Your task to perform on an android device: add a contact in the contacts app Image 0: 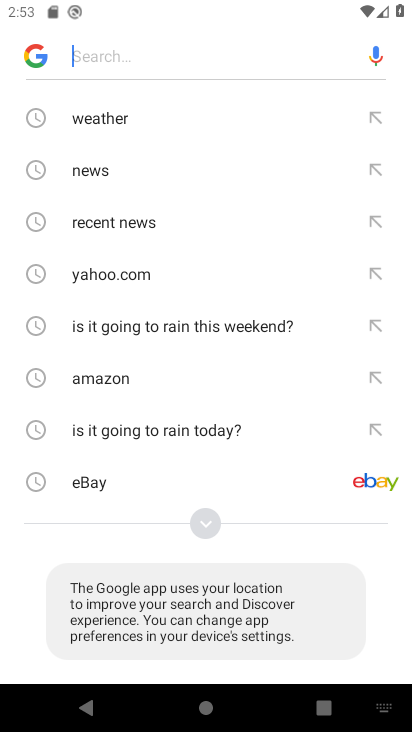
Step 0: press home button
Your task to perform on an android device: add a contact in the contacts app Image 1: 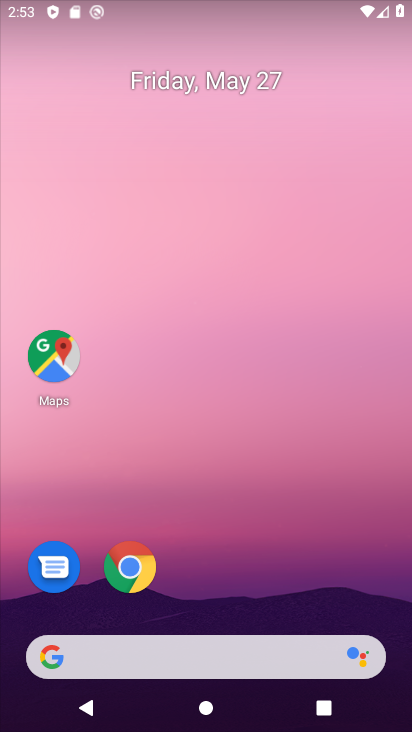
Step 1: drag from (231, 577) to (219, 160)
Your task to perform on an android device: add a contact in the contacts app Image 2: 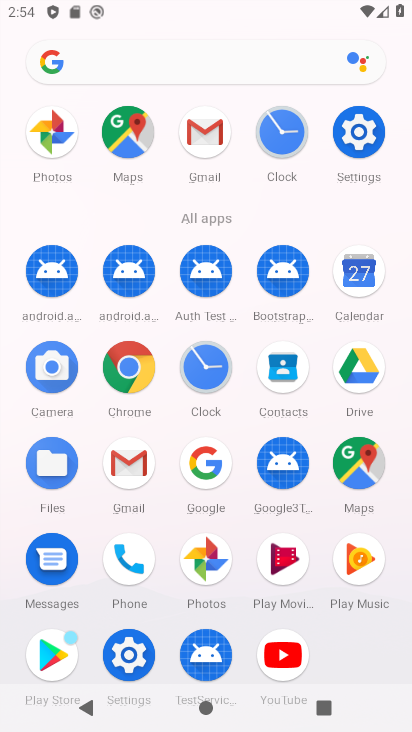
Step 2: click (279, 366)
Your task to perform on an android device: add a contact in the contacts app Image 3: 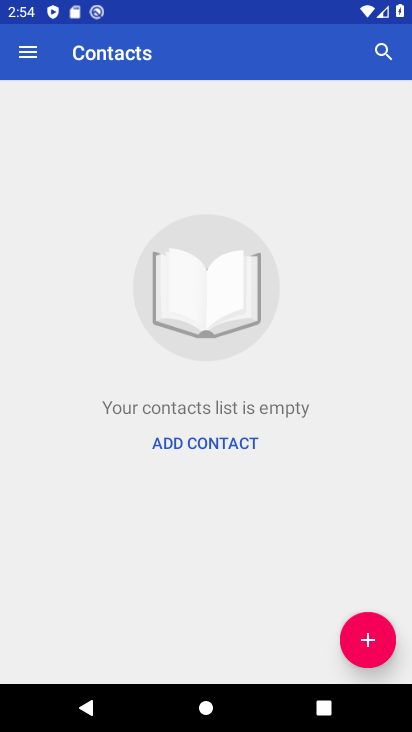
Step 3: click (349, 644)
Your task to perform on an android device: add a contact in the contacts app Image 4: 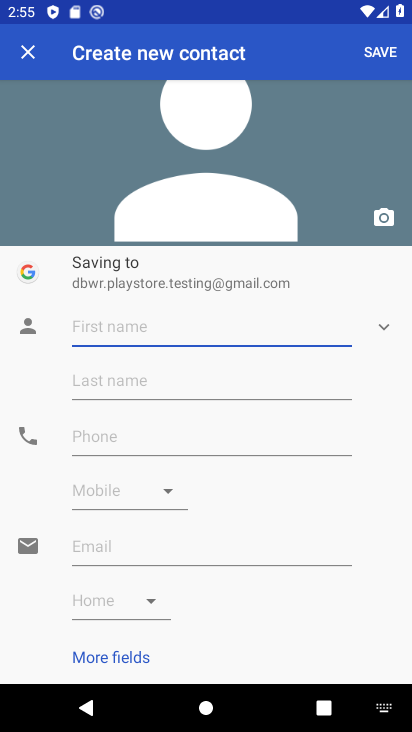
Step 4: type "gftfc"
Your task to perform on an android device: add a contact in the contacts app Image 5: 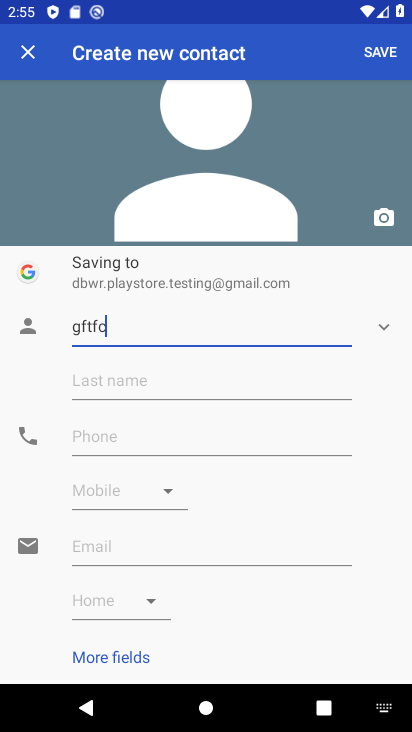
Step 5: click (375, 53)
Your task to perform on an android device: add a contact in the contacts app Image 6: 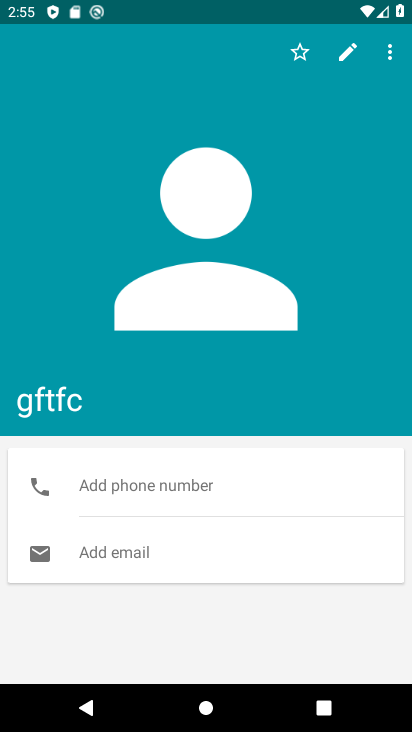
Step 6: task complete